Your task to perform on an android device: Open Google Chrome and open the bookmarks view Image 0: 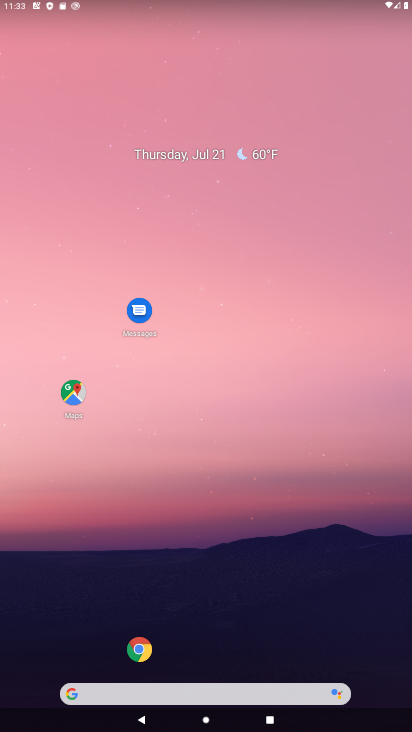
Step 0: click (151, 656)
Your task to perform on an android device: Open Google Chrome and open the bookmarks view Image 1: 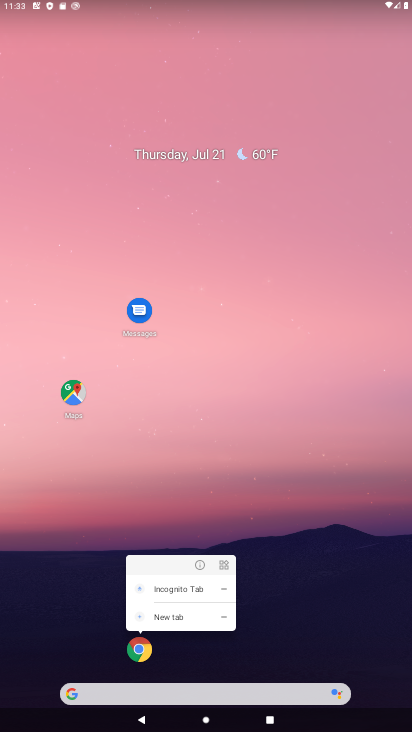
Step 1: click (143, 652)
Your task to perform on an android device: Open Google Chrome and open the bookmarks view Image 2: 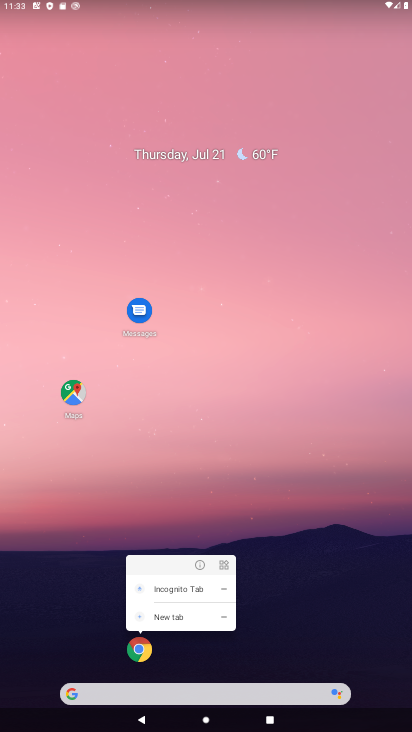
Step 2: click (126, 651)
Your task to perform on an android device: Open Google Chrome and open the bookmarks view Image 3: 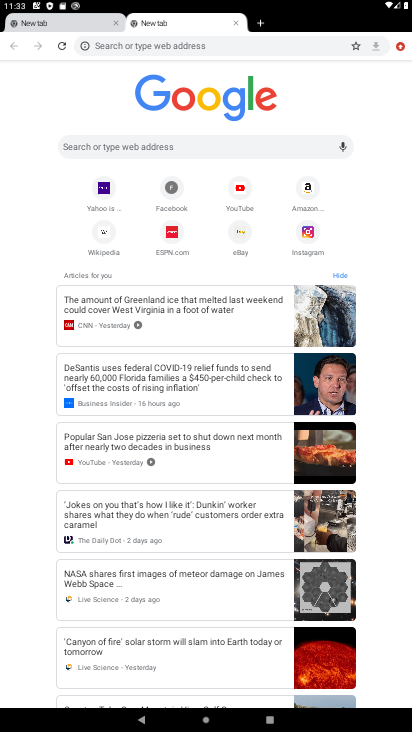
Step 3: click (308, 44)
Your task to perform on an android device: Open Google Chrome and open the bookmarks view Image 4: 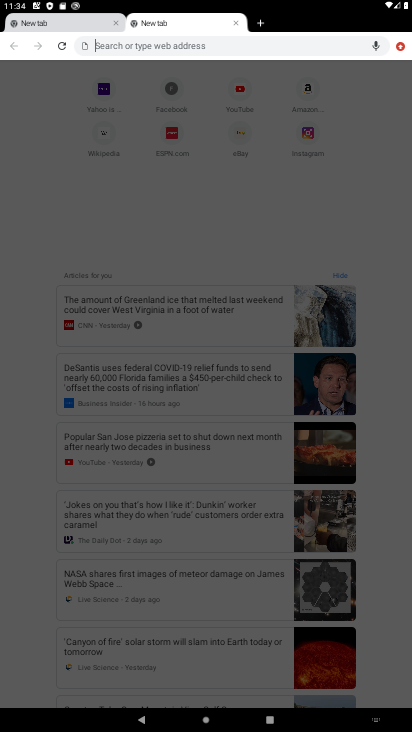
Step 4: task complete